Your task to perform on an android device: turn off notifications in google photos Image 0: 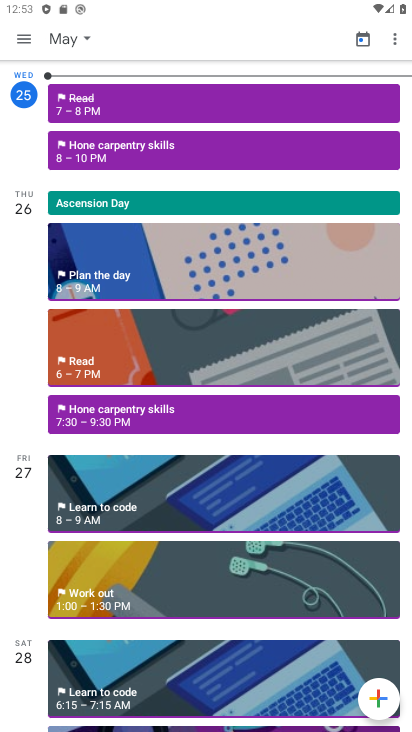
Step 0: press home button
Your task to perform on an android device: turn off notifications in google photos Image 1: 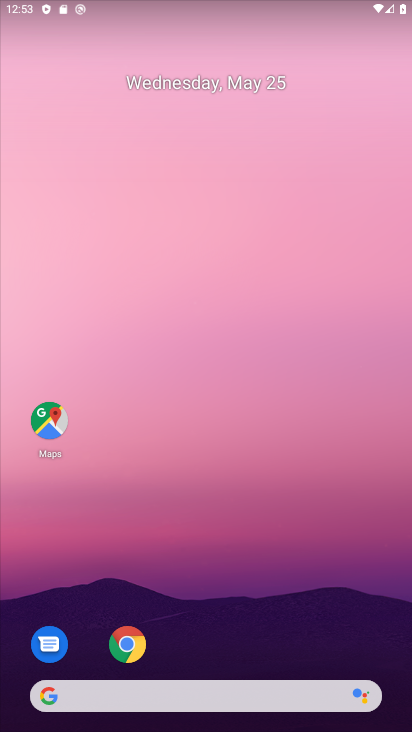
Step 1: drag from (169, 660) to (277, 41)
Your task to perform on an android device: turn off notifications in google photos Image 2: 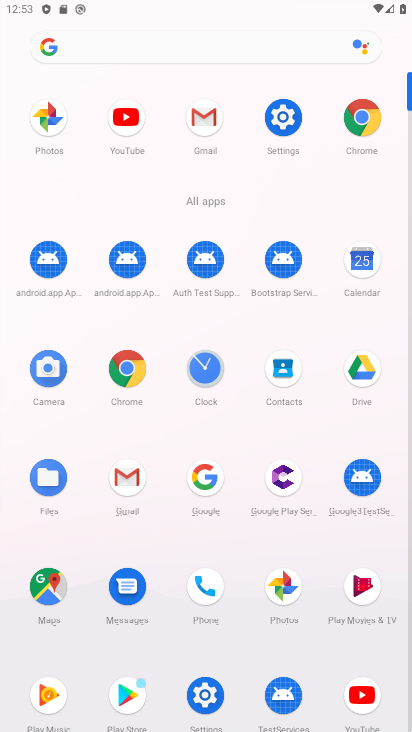
Step 2: click (278, 606)
Your task to perform on an android device: turn off notifications in google photos Image 3: 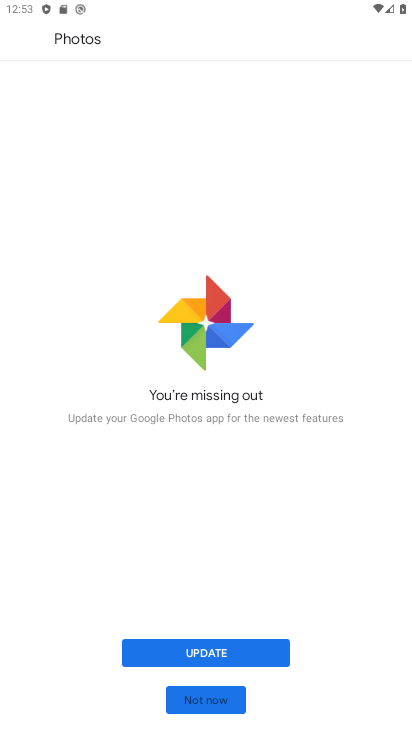
Step 3: click (187, 711)
Your task to perform on an android device: turn off notifications in google photos Image 4: 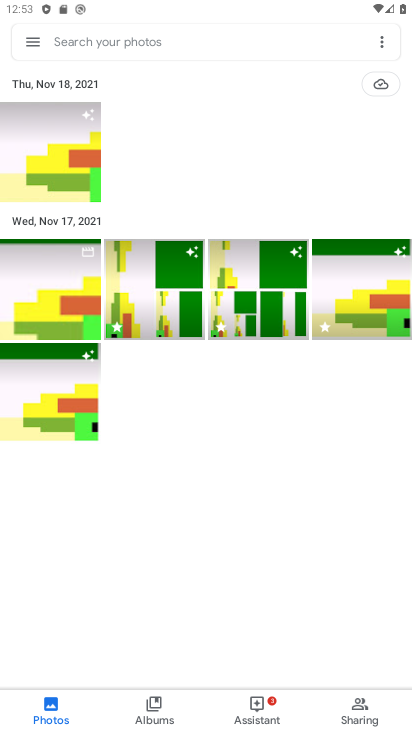
Step 4: click (33, 40)
Your task to perform on an android device: turn off notifications in google photos Image 5: 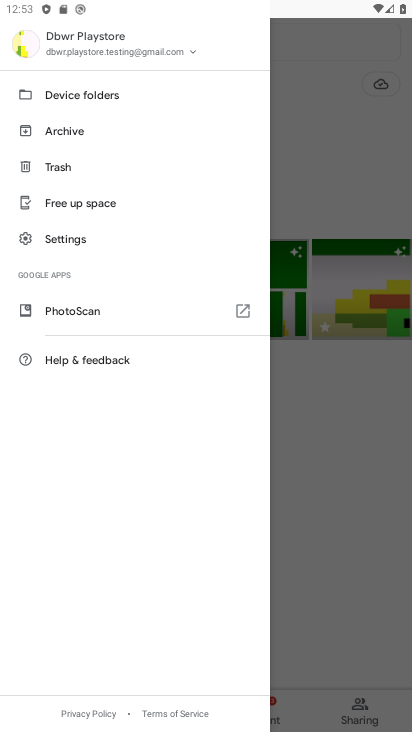
Step 5: click (72, 243)
Your task to perform on an android device: turn off notifications in google photos Image 6: 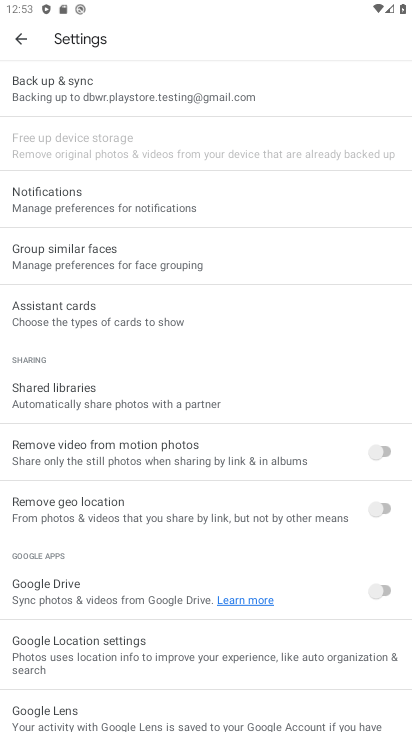
Step 6: click (74, 200)
Your task to perform on an android device: turn off notifications in google photos Image 7: 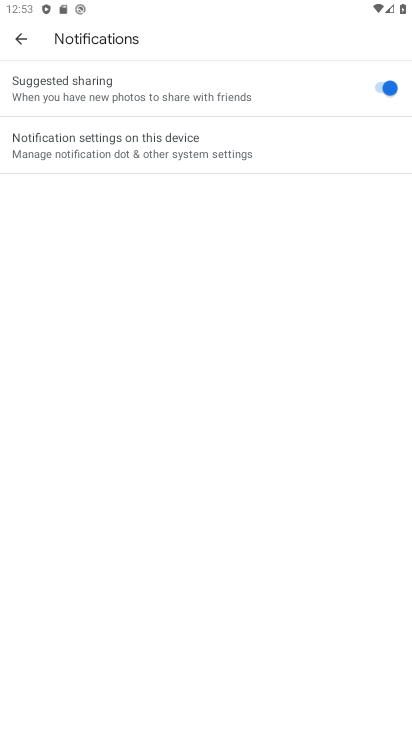
Step 7: click (373, 93)
Your task to perform on an android device: turn off notifications in google photos Image 8: 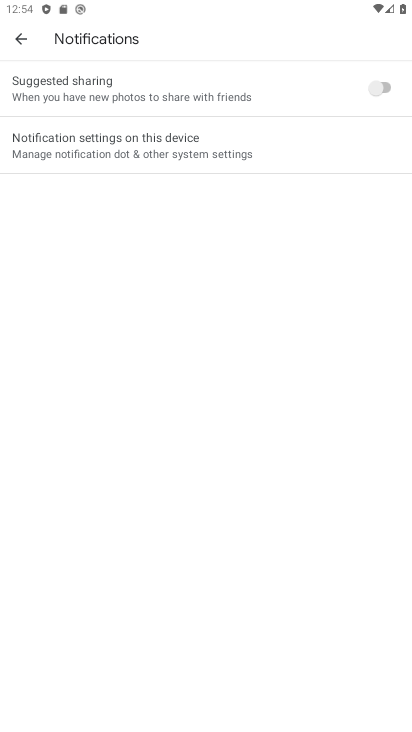
Step 8: task complete